Your task to perform on an android device: search for starred emails in the gmail app Image 0: 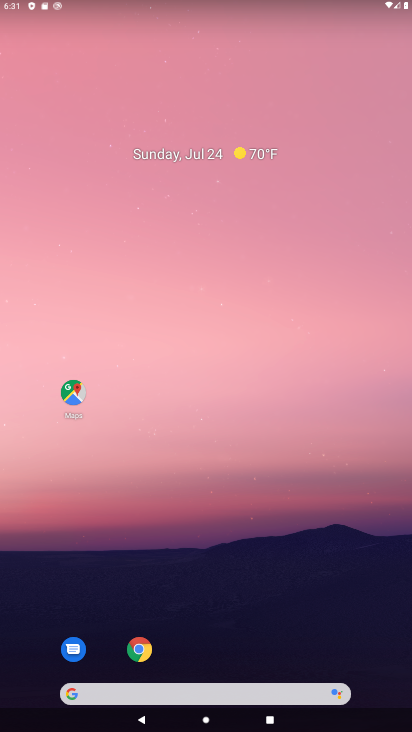
Step 0: drag from (208, 564) to (148, 20)
Your task to perform on an android device: search for starred emails in the gmail app Image 1: 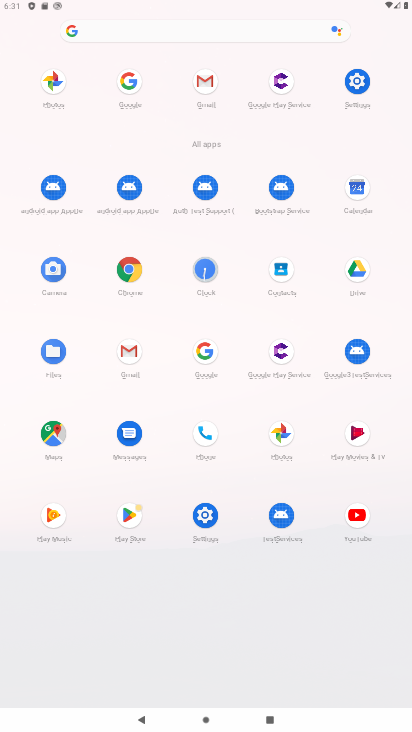
Step 1: click (201, 80)
Your task to perform on an android device: search for starred emails in the gmail app Image 2: 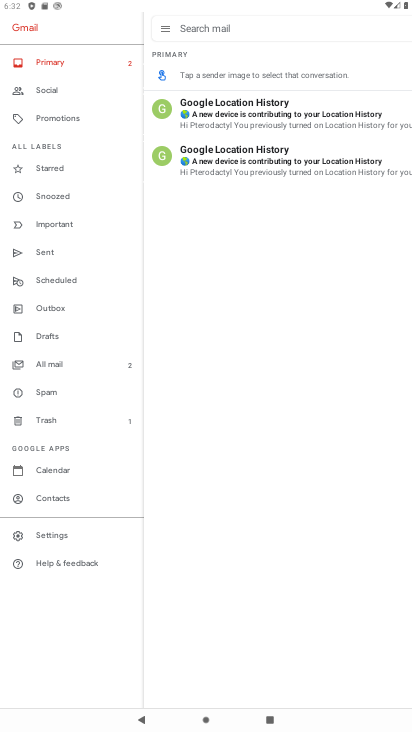
Step 2: click (47, 166)
Your task to perform on an android device: search for starred emails in the gmail app Image 3: 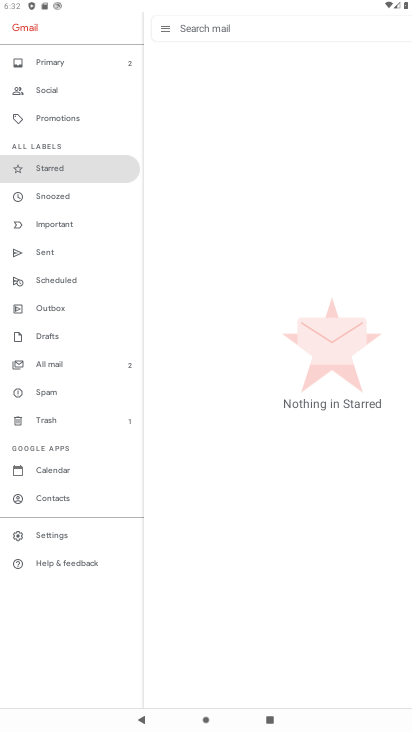
Step 3: task complete